Your task to perform on an android device: Is it going to rain today? Image 0: 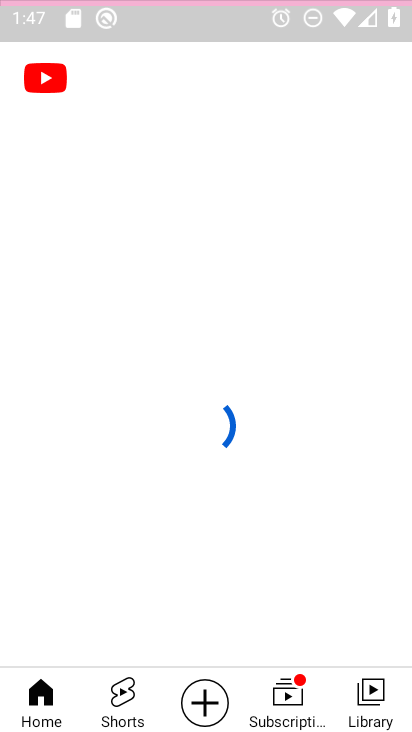
Step 0: click (200, 112)
Your task to perform on an android device: Is it going to rain today? Image 1: 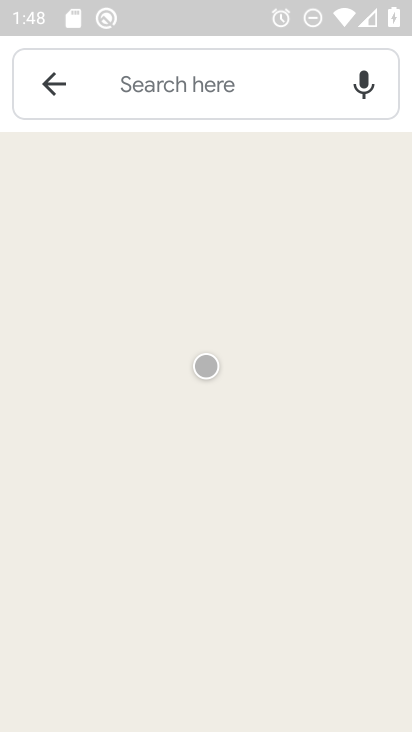
Step 1: press home button
Your task to perform on an android device: Is it going to rain today? Image 2: 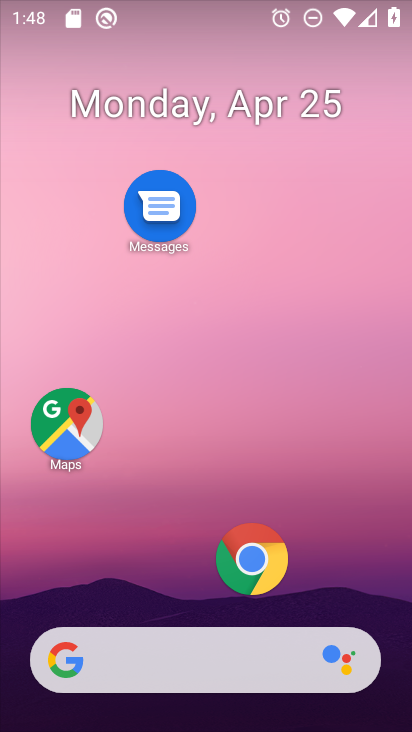
Step 2: drag from (166, 391) to (167, 68)
Your task to perform on an android device: Is it going to rain today? Image 3: 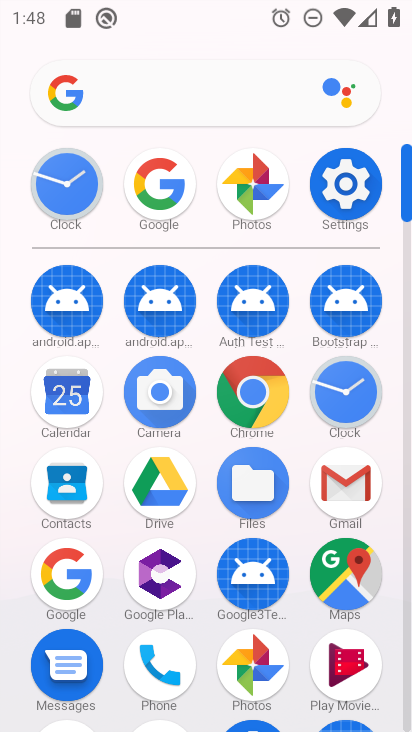
Step 3: click (158, 184)
Your task to perform on an android device: Is it going to rain today? Image 4: 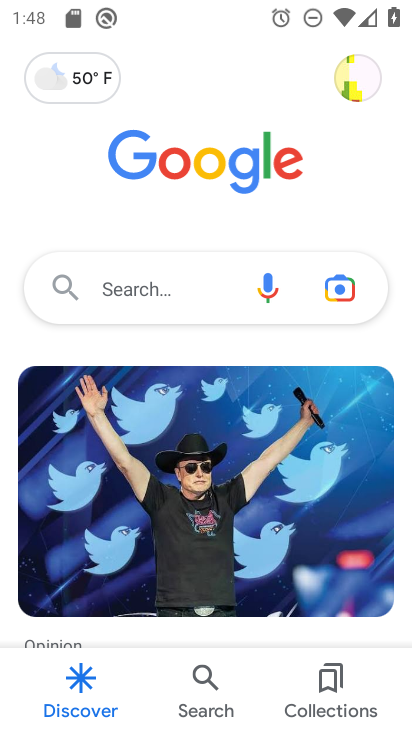
Step 4: click (160, 287)
Your task to perform on an android device: Is it going to rain today? Image 5: 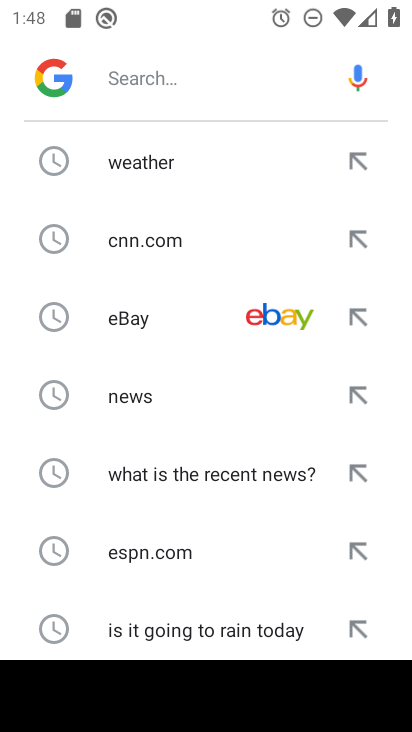
Step 5: click (191, 634)
Your task to perform on an android device: Is it going to rain today? Image 6: 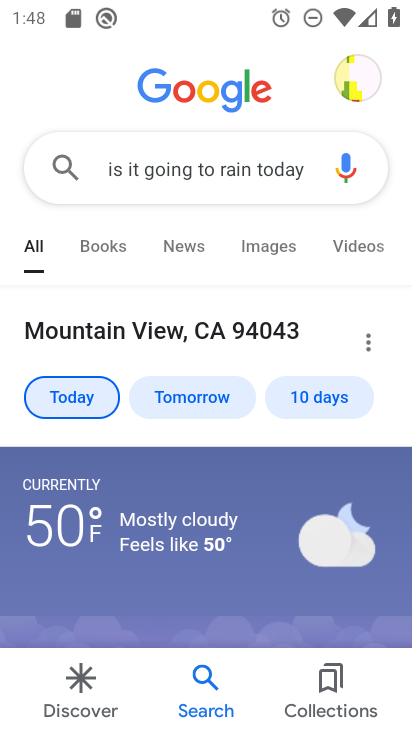
Step 6: task complete